Your task to perform on an android device: Open battery settings Image 0: 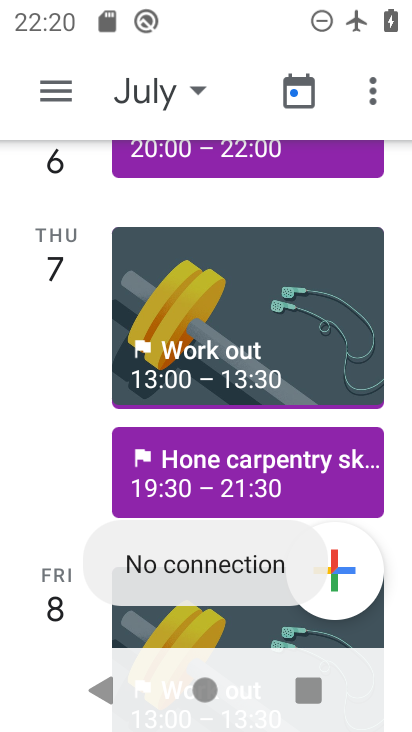
Step 0: press home button
Your task to perform on an android device: Open battery settings Image 1: 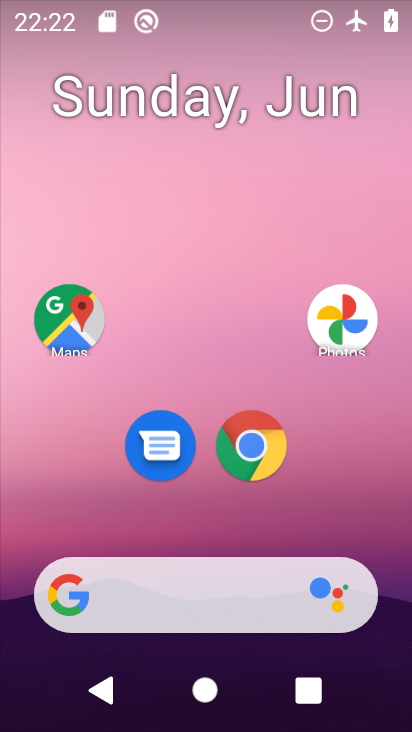
Step 1: drag from (290, 506) to (298, 6)
Your task to perform on an android device: Open battery settings Image 2: 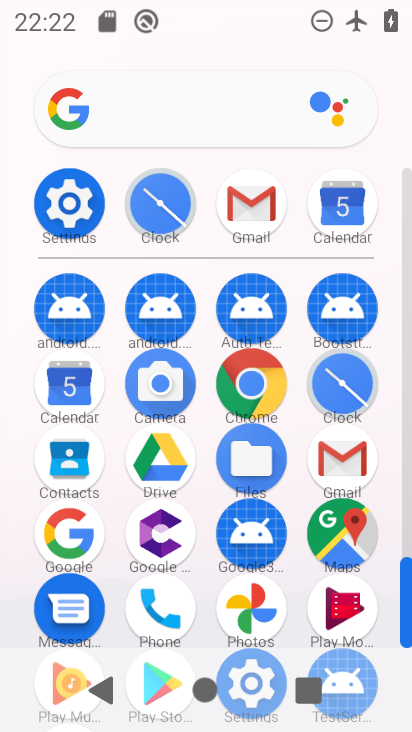
Step 2: click (74, 209)
Your task to perform on an android device: Open battery settings Image 3: 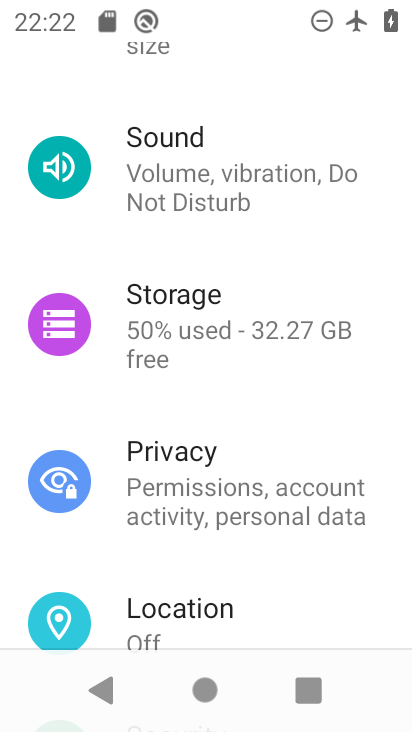
Step 3: drag from (299, 268) to (366, 665)
Your task to perform on an android device: Open battery settings Image 4: 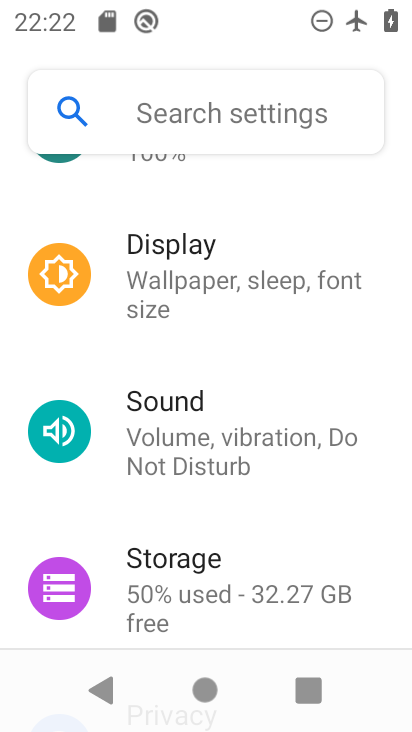
Step 4: drag from (302, 229) to (318, 457)
Your task to perform on an android device: Open battery settings Image 5: 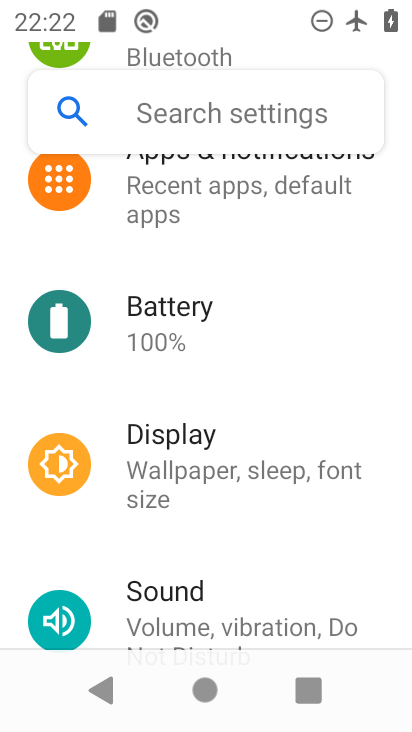
Step 5: click (171, 308)
Your task to perform on an android device: Open battery settings Image 6: 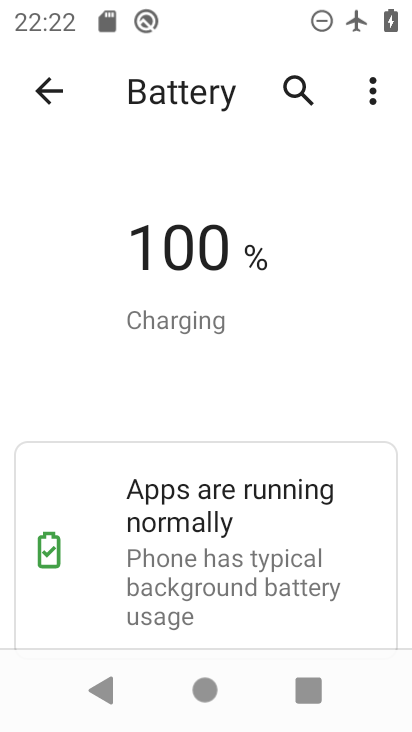
Step 6: task complete